Your task to perform on an android device: turn on the 12-hour format for clock Image 0: 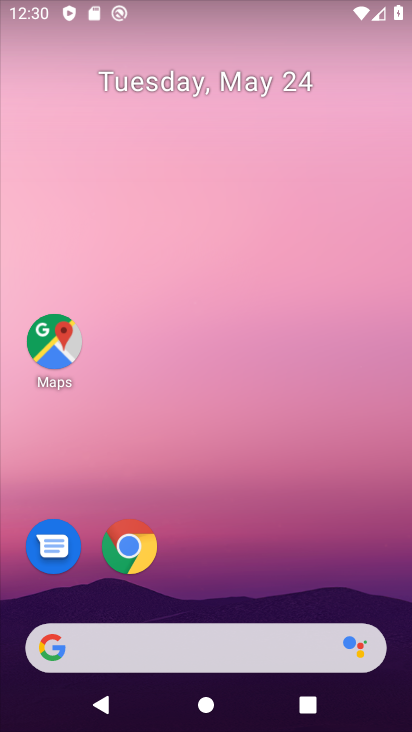
Step 0: drag from (288, 637) to (362, 67)
Your task to perform on an android device: turn on the 12-hour format for clock Image 1: 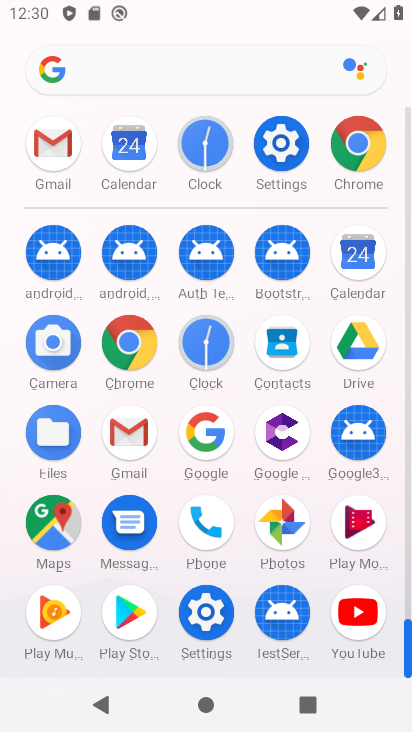
Step 1: click (210, 351)
Your task to perform on an android device: turn on the 12-hour format for clock Image 2: 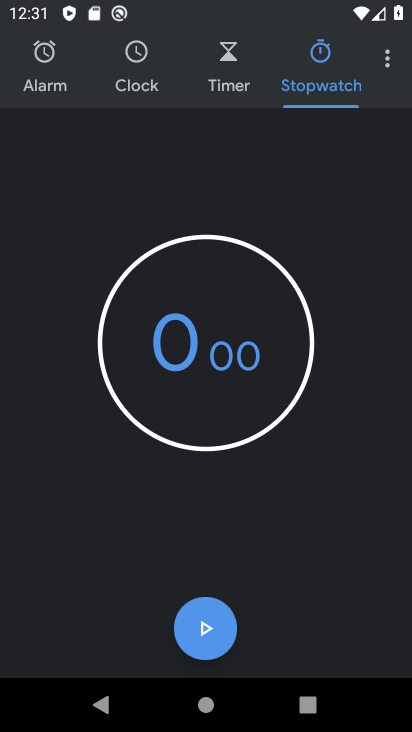
Step 2: click (379, 62)
Your task to perform on an android device: turn on the 12-hour format for clock Image 3: 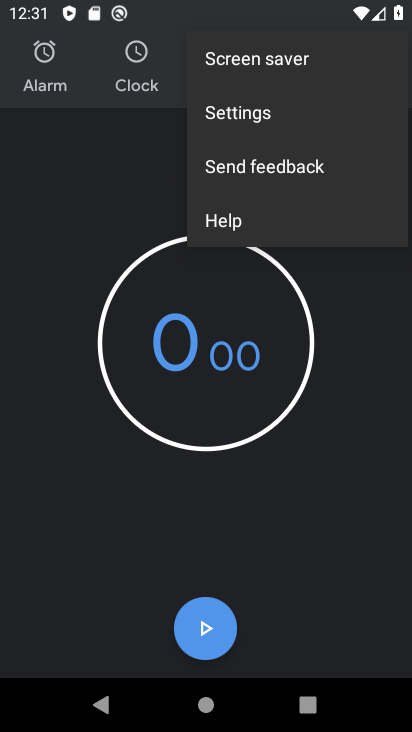
Step 3: click (281, 117)
Your task to perform on an android device: turn on the 12-hour format for clock Image 4: 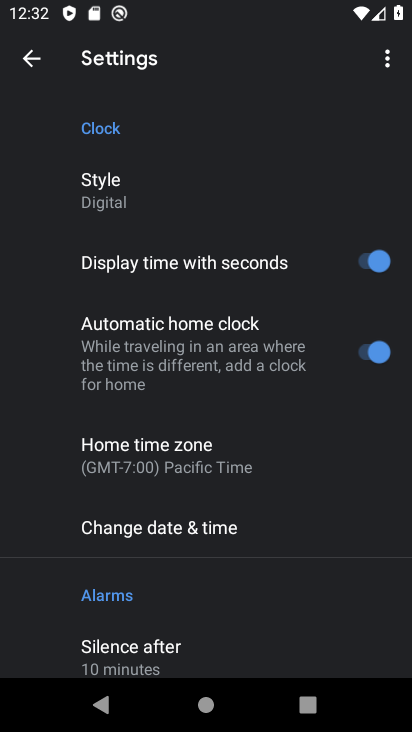
Step 4: click (216, 526)
Your task to perform on an android device: turn on the 12-hour format for clock Image 5: 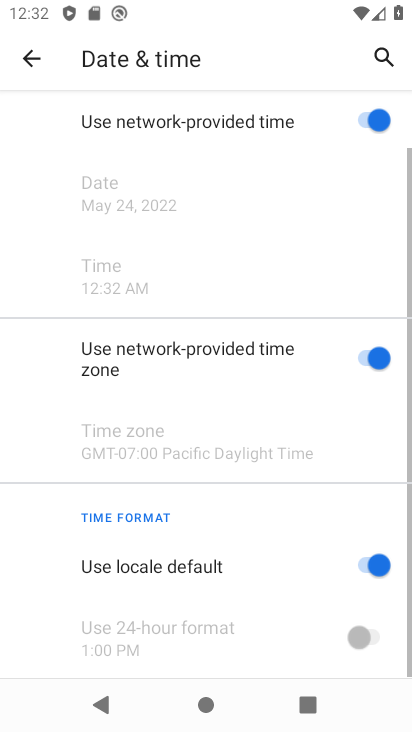
Step 5: drag from (241, 582) to (234, 89)
Your task to perform on an android device: turn on the 12-hour format for clock Image 6: 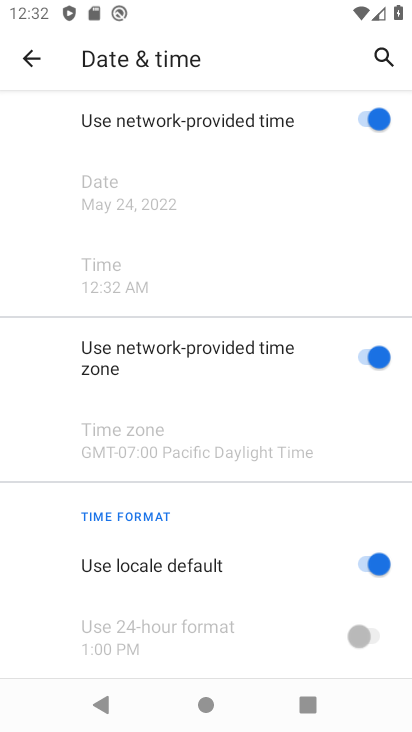
Step 6: click (360, 566)
Your task to perform on an android device: turn on the 12-hour format for clock Image 7: 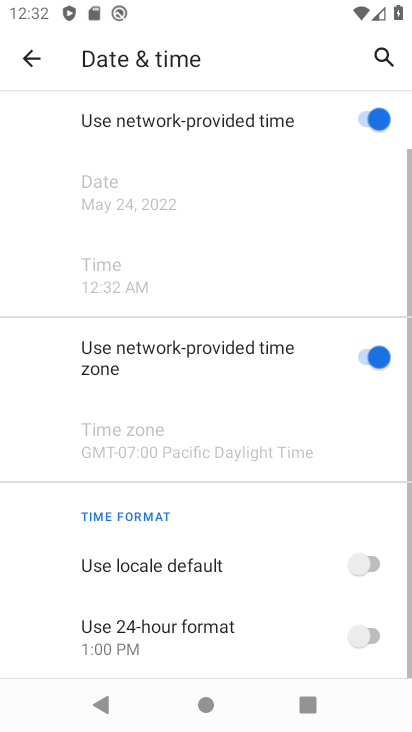
Step 7: click (369, 631)
Your task to perform on an android device: turn on the 12-hour format for clock Image 8: 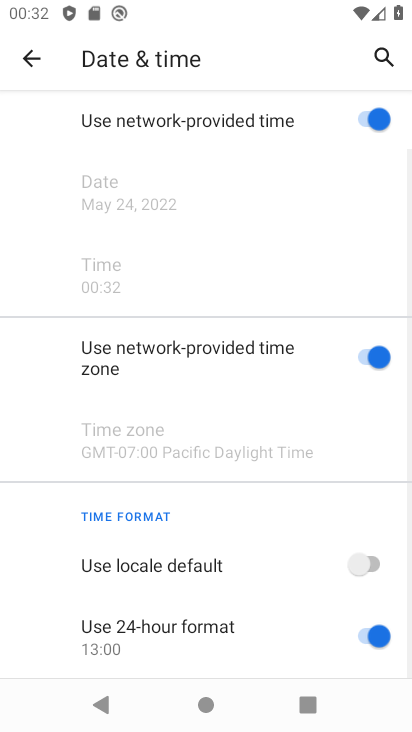
Step 8: task complete